Your task to perform on an android device: Go to Amazon Image 0: 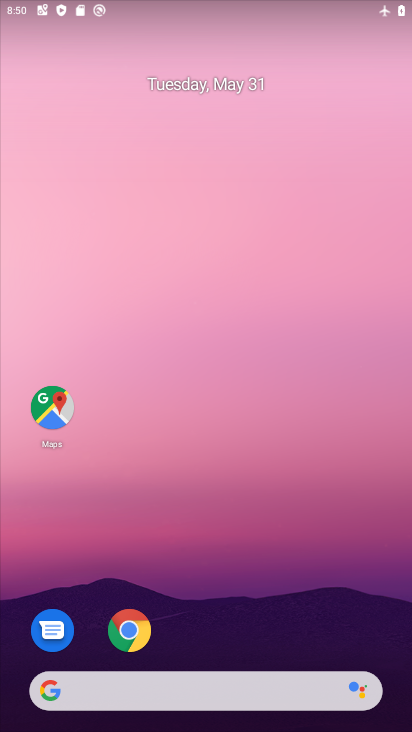
Step 0: click (137, 616)
Your task to perform on an android device: Go to Amazon Image 1: 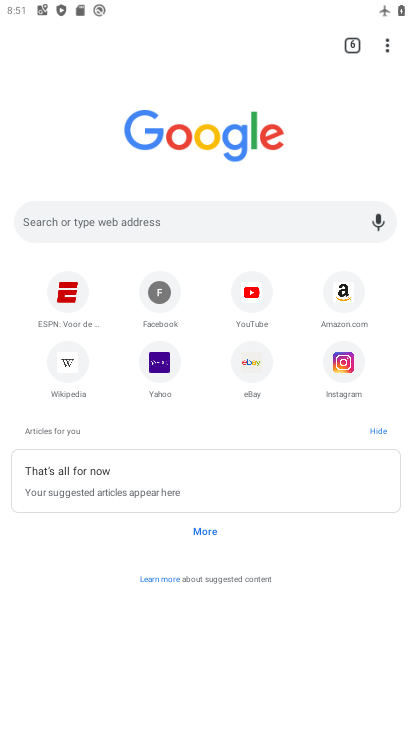
Step 1: click (337, 294)
Your task to perform on an android device: Go to Amazon Image 2: 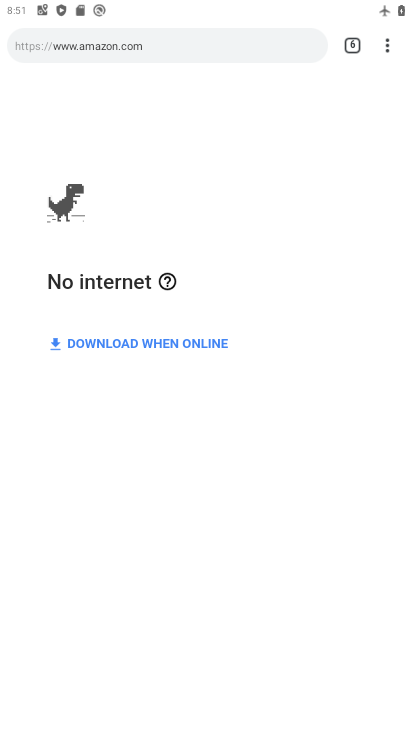
Step 2: task complete